Your task to perform on an android device: clear all cookies in the chrome app Image 0: 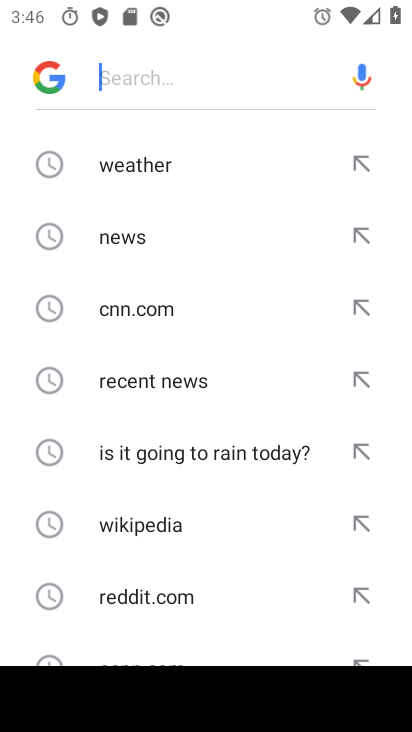
Step 0: press home button
Your task to perform on an android device: clear all cookies in the chrome app Image 1: 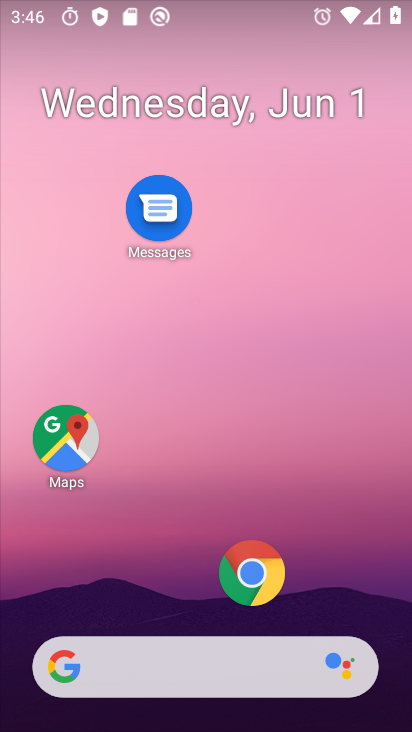
Step 1: click (234, 594)
Your task to perform on an android device: clear all cookies in the chrome app Image 2: 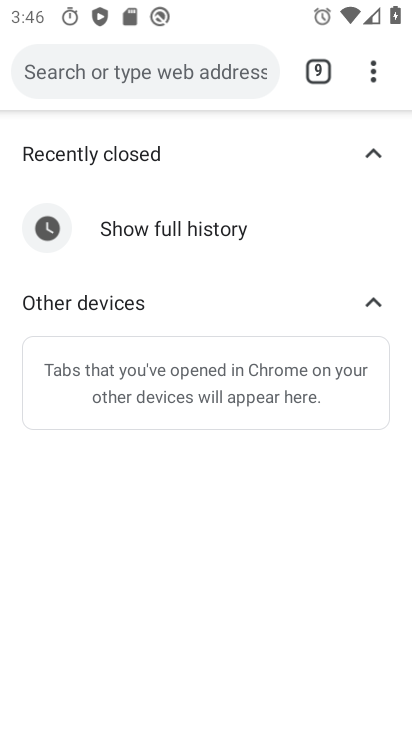
Step 2: drag from (367, 65) to (122, 407)
Your task to perform on an android device: clear all cookies in the chrome app Image 3: 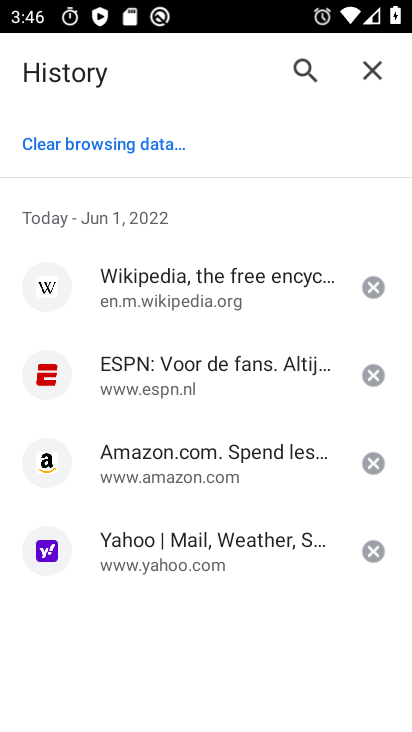
Step 3: click (99, 141)
Your task to perform on an android device: clear all cookies in the chrome app Image 4: 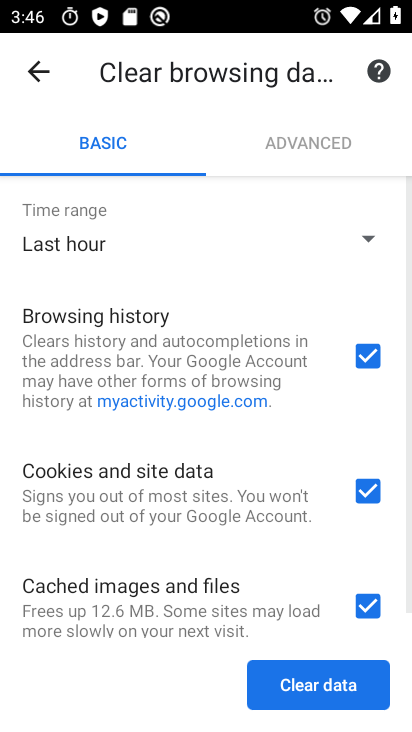
Step 4: click (295, 669)
Your task to perform on an android device: clear all cookies in the chrome app Image 5: 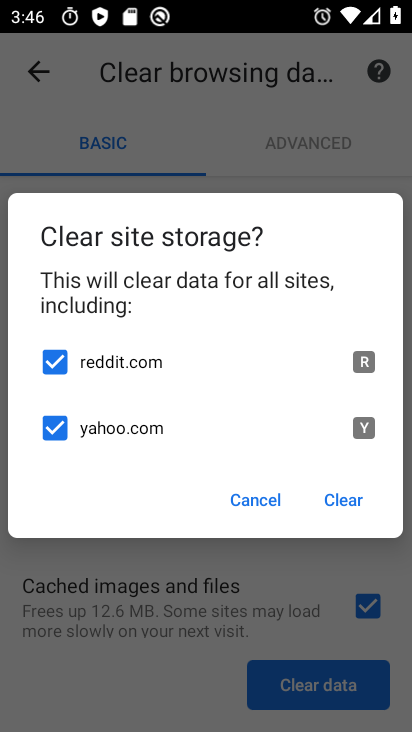
Step 5: click (344, 504)
Your task to perform on an android device: clear all cookies in the chrome app Image 6: 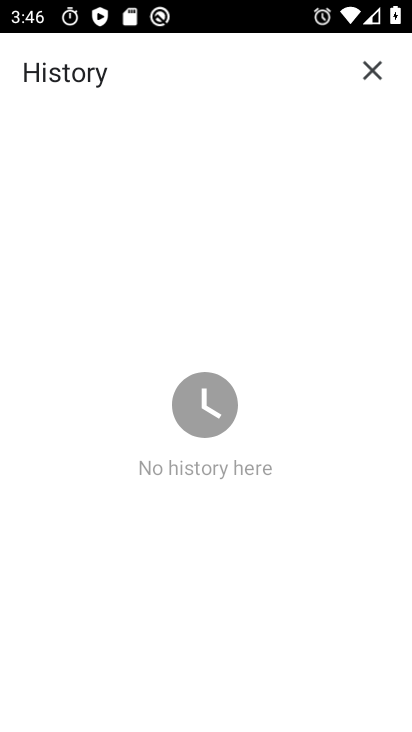
Step 6: task complete